Your task to perform on an android device: change alarm snooze length Image 0: 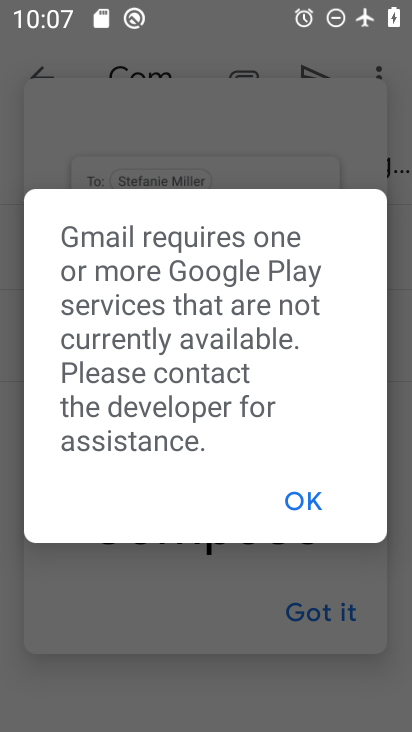
Step 0: press home button
Your task to perform on an android device: change alarm snooze length Image 1: 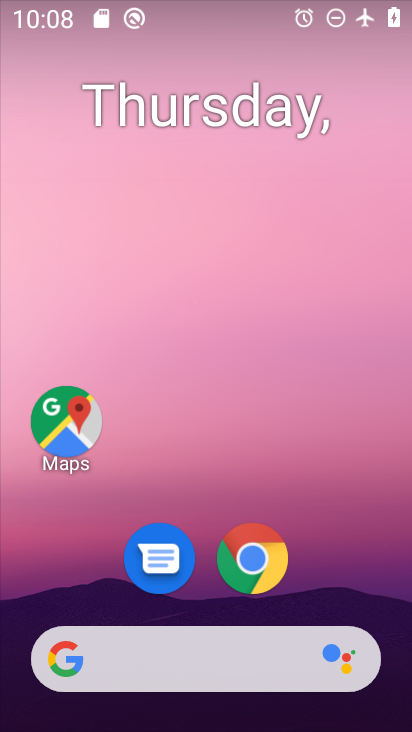
Step 1: drag from (387, 629) to (312, 98)
Your task to perform on an android device: change alarm snooze length Image 2: 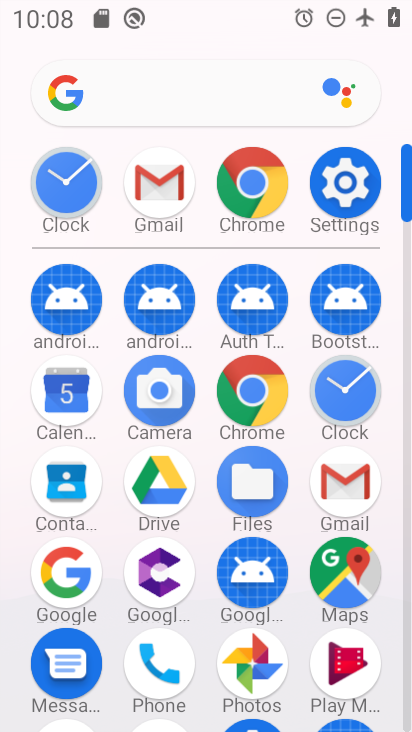
Step 2: click (403, 708)
Your task to perform on an android device: change alarm snooze length Image 3: 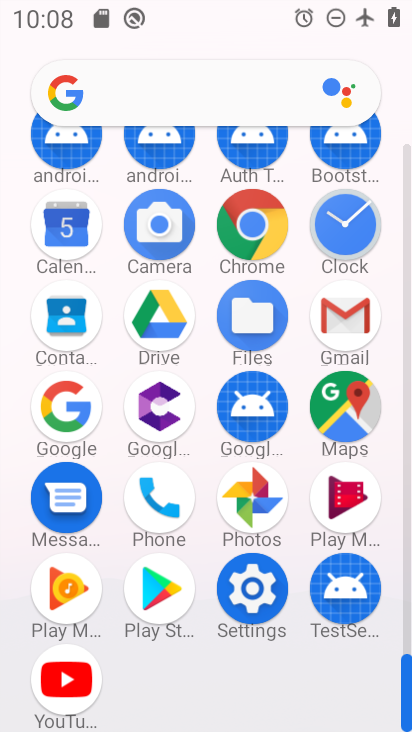
Step 3: click (338, 218)
Your task to perform on an android device: change alarm snooze length Image 4: 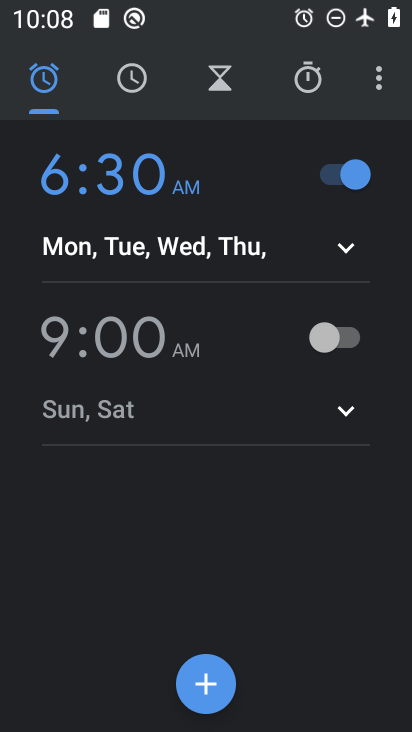
Step 4: click (375, 80)
Your task to perform on an android device: change alarm snooze length Image 5: 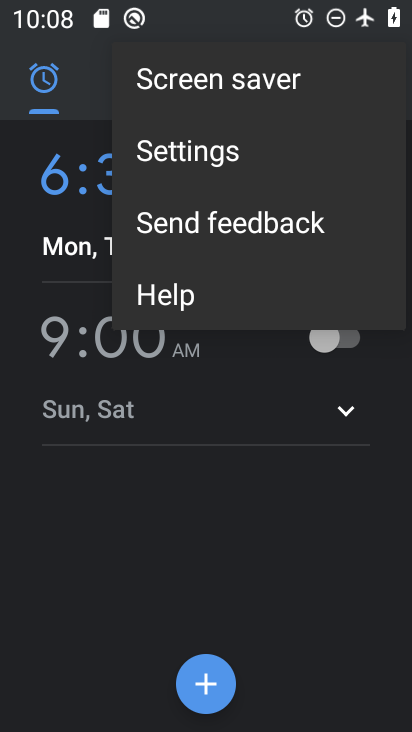
Step 5: click (167, 140)
Your task to perform on an android device: change alarm snooze length Image 6: 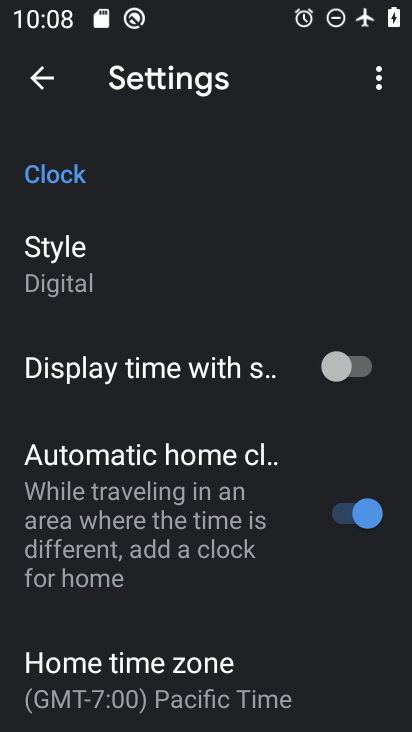
Step 6: drag from (199, 508) to (175, 103)
Your task to perform on an android device: change alarm snooze length Image 7: 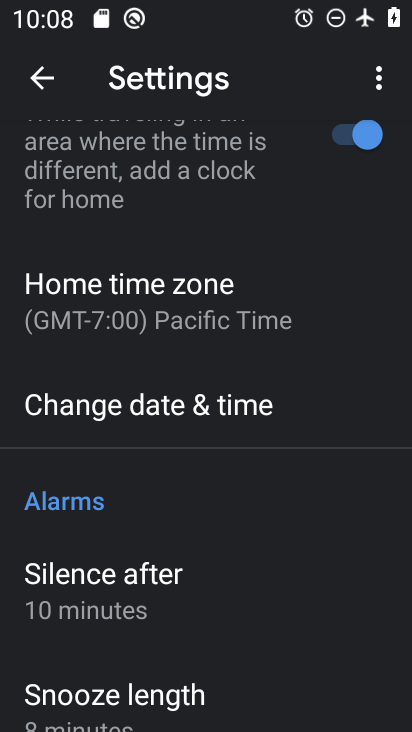
Step 7: drag from (186, 458) to (193, 138)
Your task to perform on an android device: change alarm snooze length Image 8: 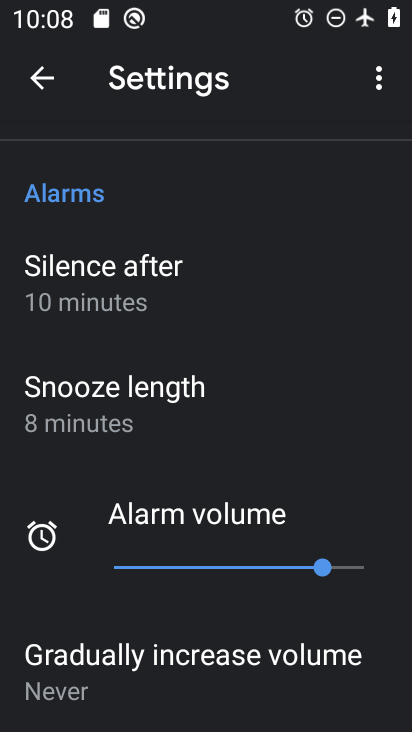
Step 8: click (125, 404)
Your task to perform on an android device: change alarm snooze length Image 9: 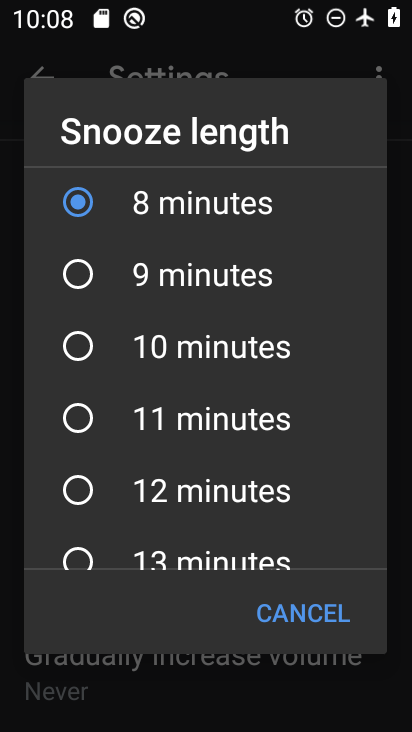
Step 9: click (78, 485)
Your task to perform on an android device: change alarm snooze length Image 10: 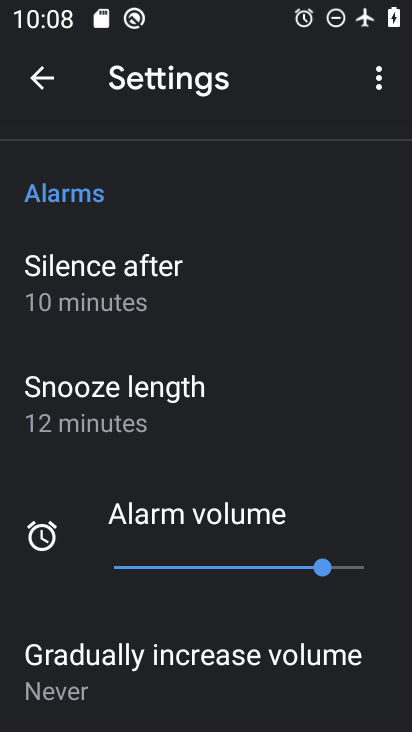
Step 10: task complete